Your task to perform on an android device: open chrome and create a bookmark for the current page Image 0: 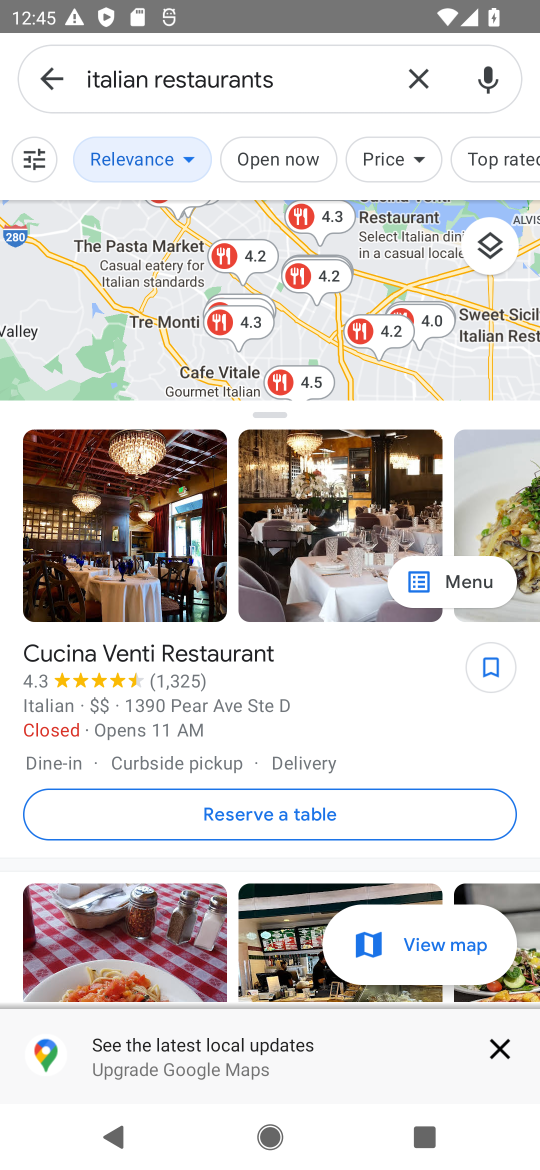
Step 0: press back button
Your task to perform on an android device: open chrome and create a bookmark for the current page Image 1: 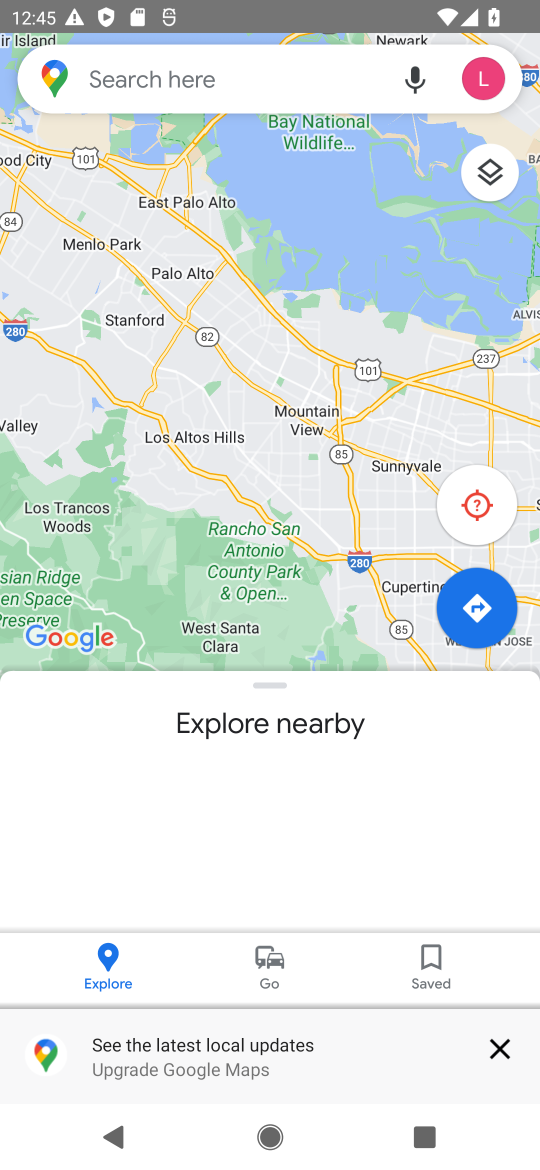
Step 1: press back button
Your task to perform on an android device: open chrome and create a bookmark for the current page Image 2: 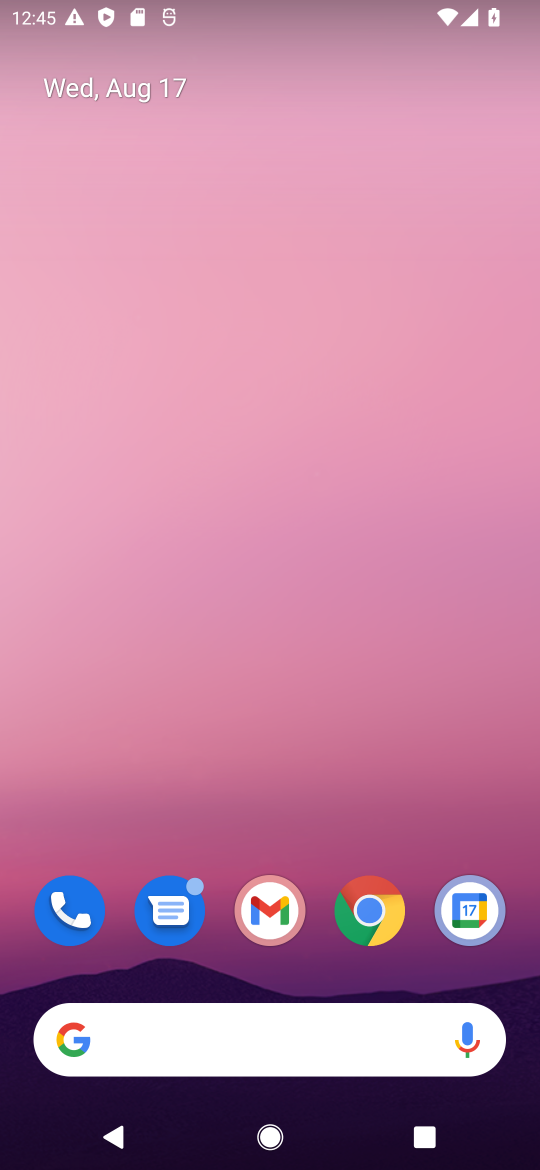
Step 2: press back button
Your task to perform on an android device: open chrome and create a bookmark for the current page Image 3: 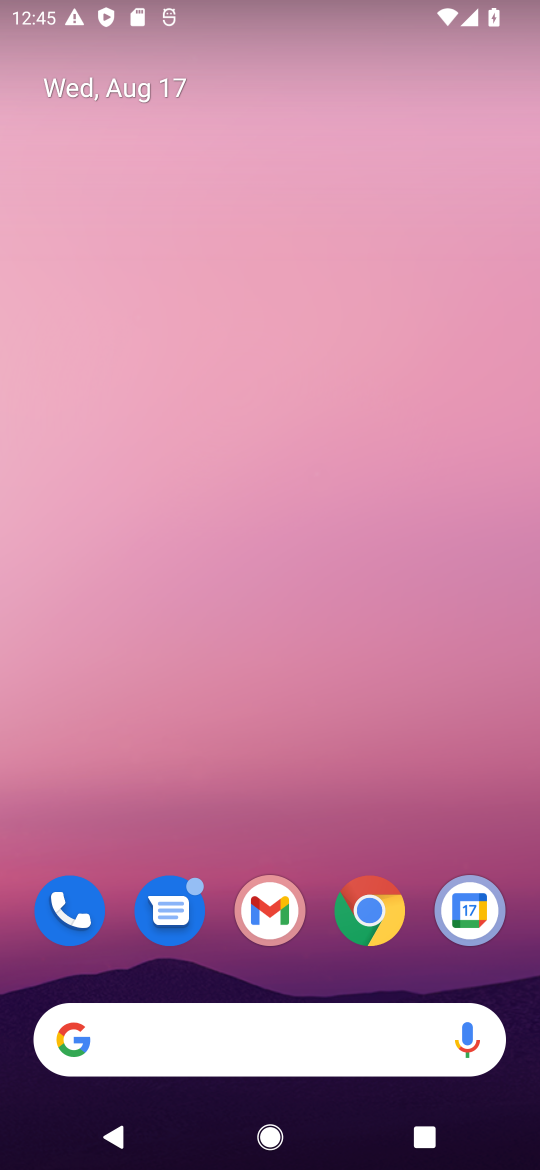
Step 3: click (365, 912)
Your task to perform on an android device: open chrome and create a bookmark for the current page Image 4: 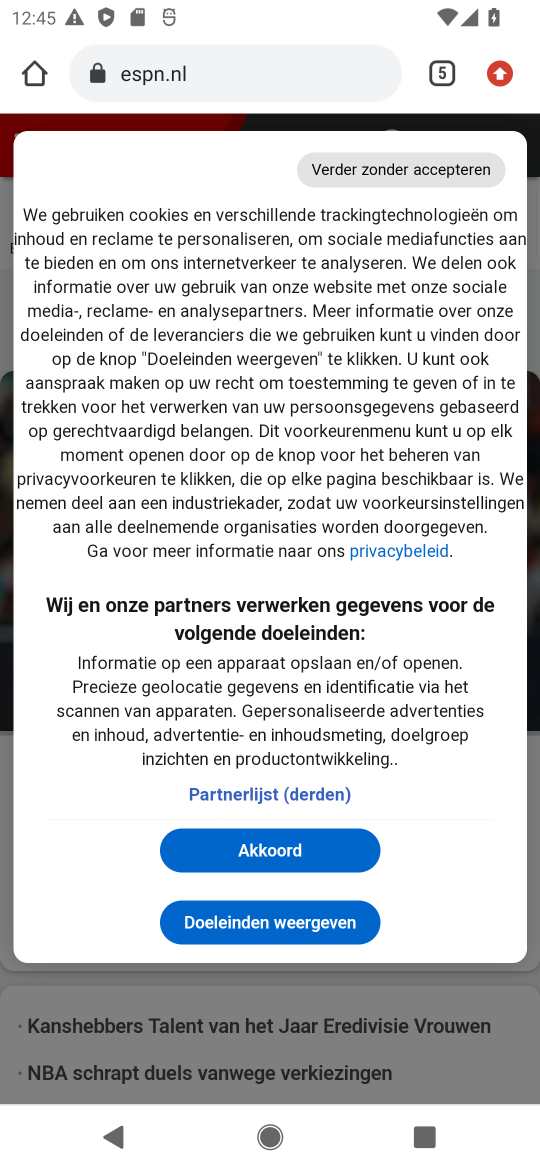
Step 4: task complete